Your task to perform on an android device: Open ESPN.com Image 0: 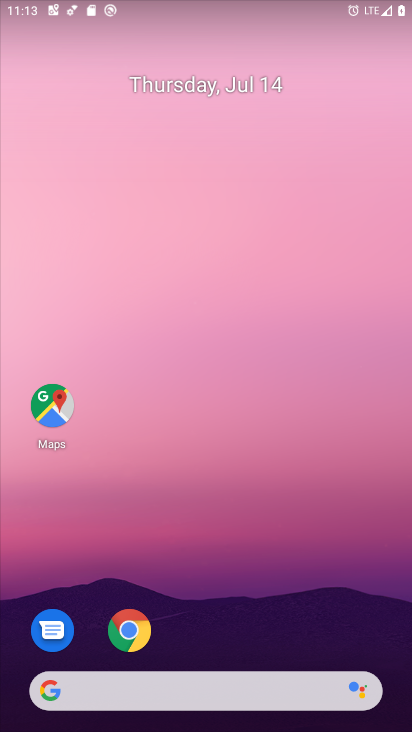
Step 0: drag from (209, 633) to (262, 17)
Your task to perform on an android device: Open ESPN.com Image 1: 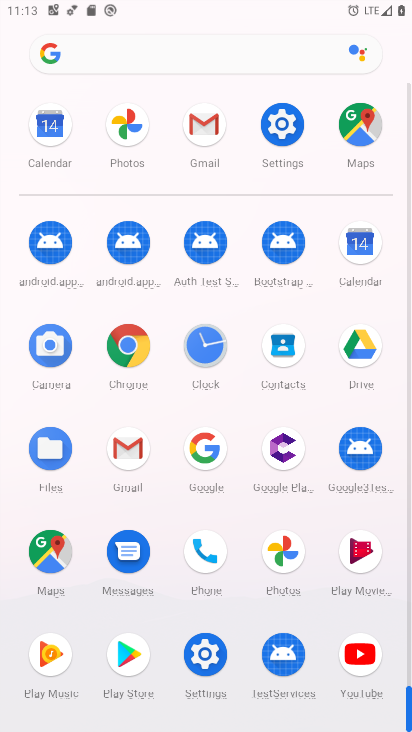
Step 1: click (130, 42)
Your task to perform on an android device: Open ESPN.com Image 2: 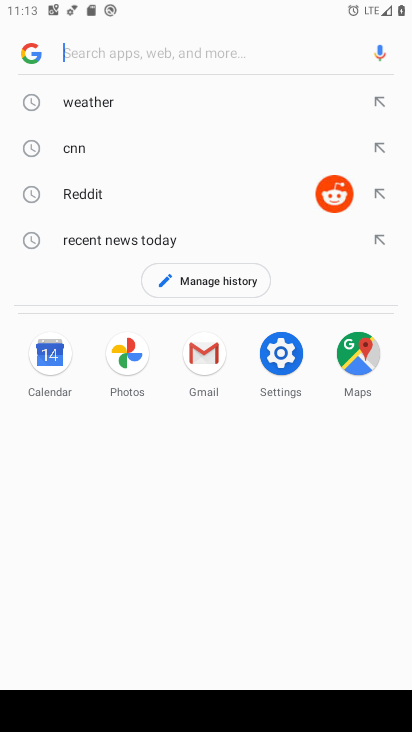
Step 2: type "ESPN.com"
Your task to perform on an android device: Open ESPN.com Image 3: 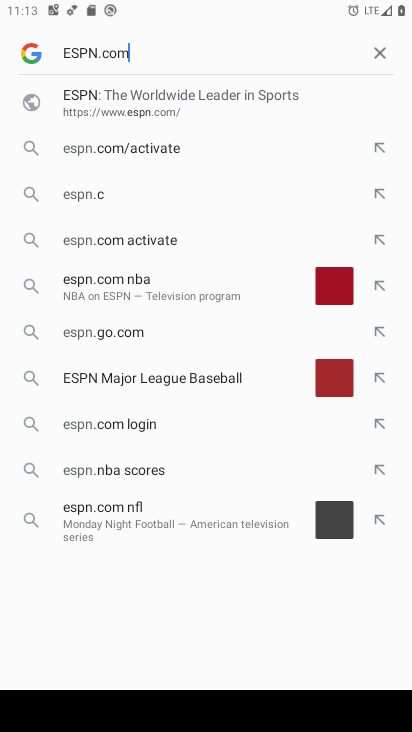
Step 3: type ""
Your task to perform on an android device: Open ESPN.com Image 4: 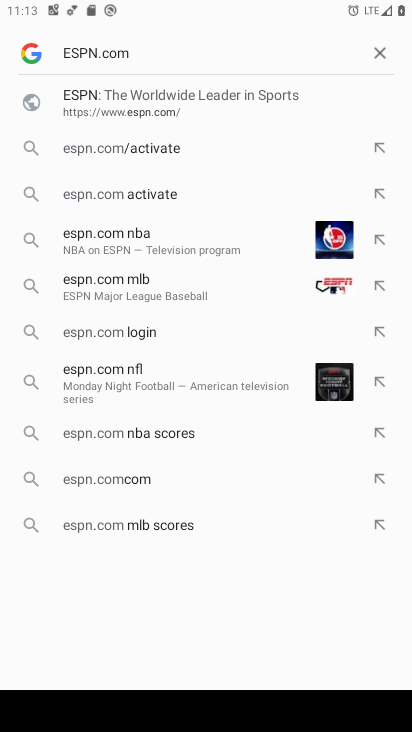
Step 4: click (104, 115)
Your task to perform on an android device: Open ESPN.com Image 5: 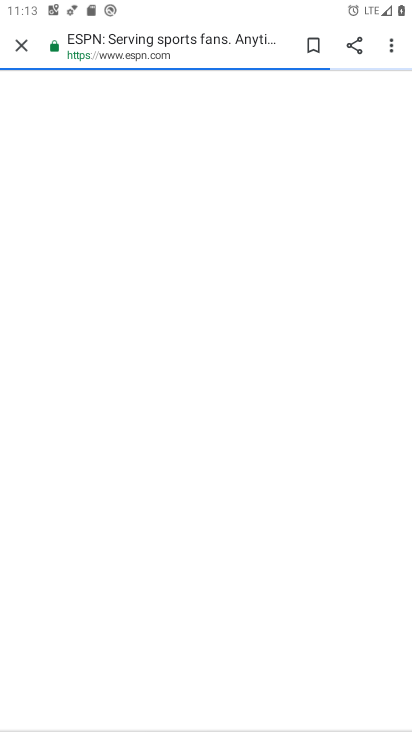
Step 5: task complete